Your task to perform on an android device: Is it going to rain tomorrow? Image 0: 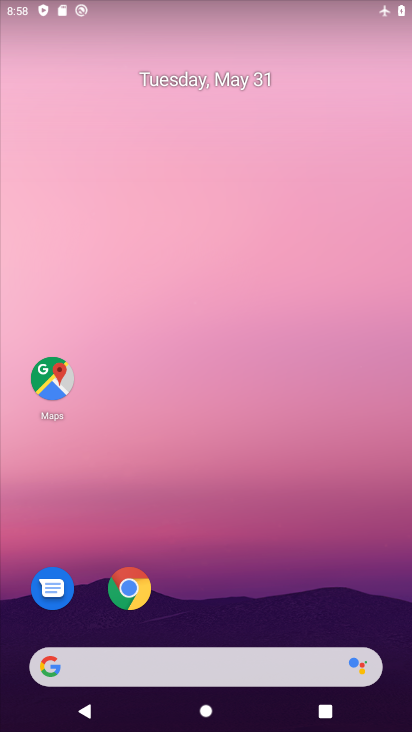
Step 0: click (80, 677)
Your task to perform on an android device: Is it going to rain tomorrow? Image 1: 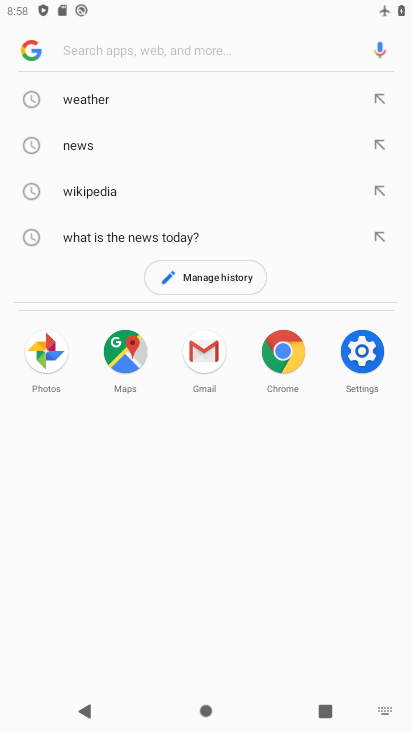
Step 1: type "Is it going to rain tomorrow?"
Your task to perform on an android device: Is it going to rain tomorrow? Image 2: 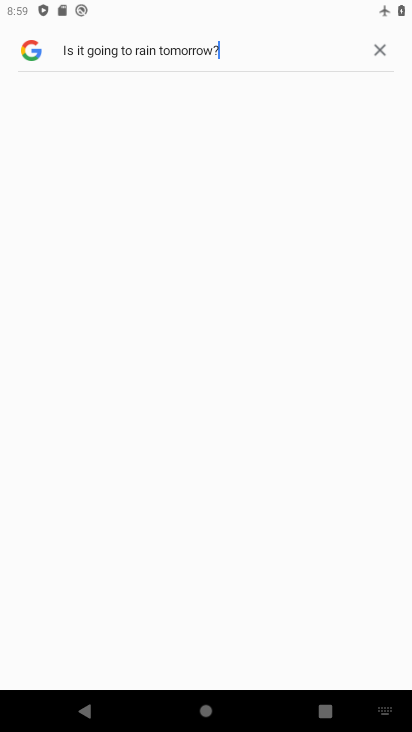
Step 2: task complete